Your task to perform on an android device: Turn off the flashlight Image 0: 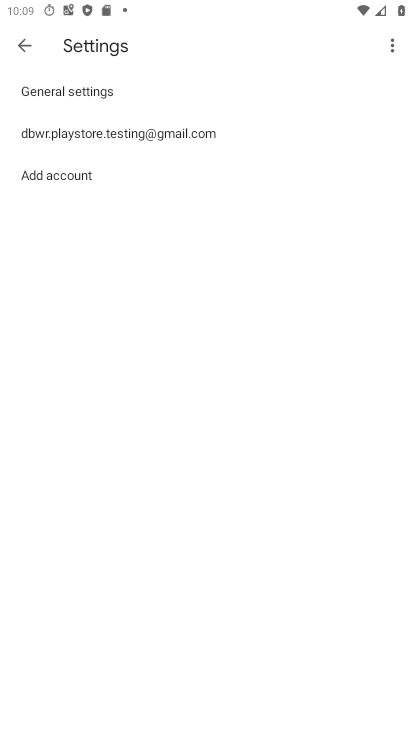
Step 0: press home button
Your task to perform on an android device: Turn off the flashlight Image 1: 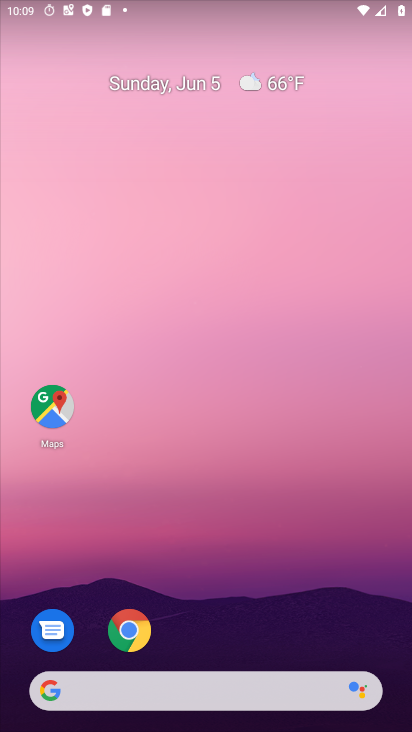
Step 1: drag from (232, 724) to (229, 4)
Your task to perform on an android device: Turn off the flashlight Image 2: 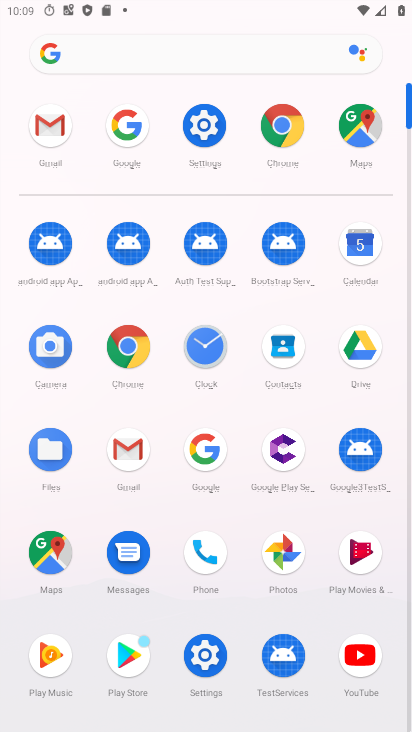
Step 2: click (204, 122)
Your task to perform on an android device: Turn off the flashlight Image 3: 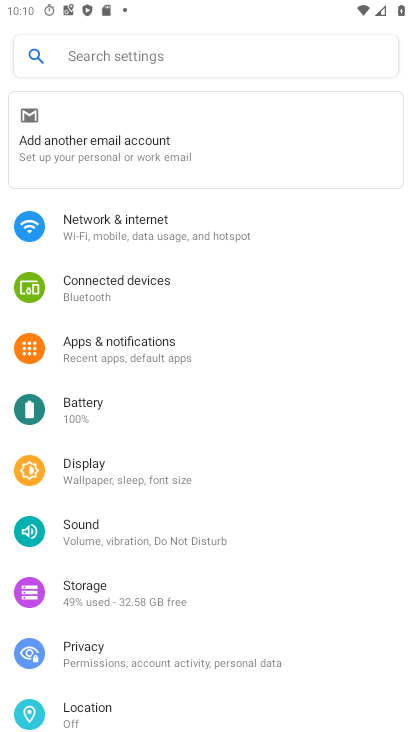
Step 3: task complete